Your task to perform on an android device: Open Google Image 0: 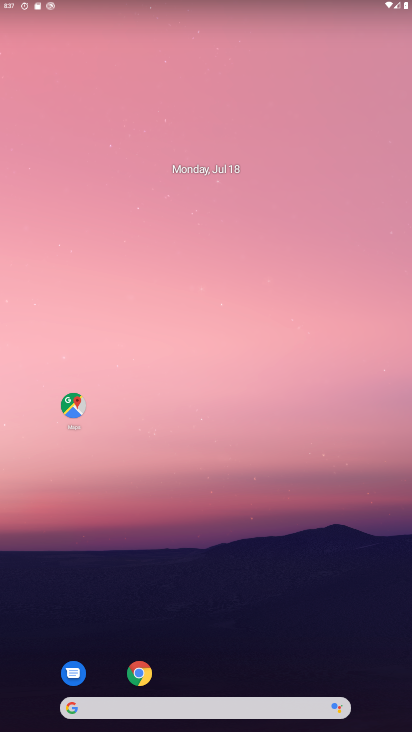
Step 0: click (198, 704)
Your task to perform on an android device: Open Google Image 1: 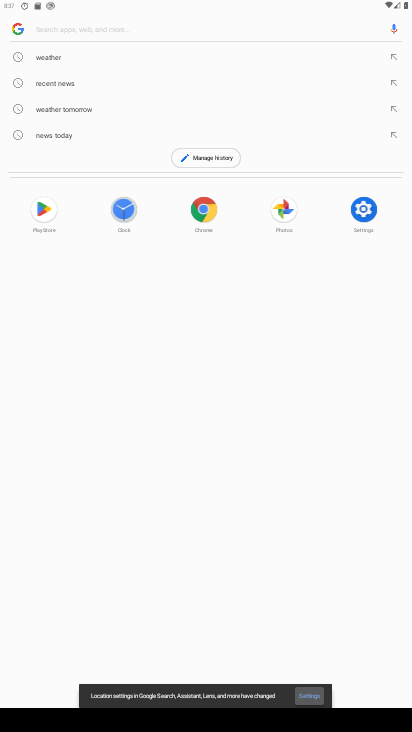
Step 1: task complete